Your task to perform on an android device: Open the calendar and show me this week's events Image 0: 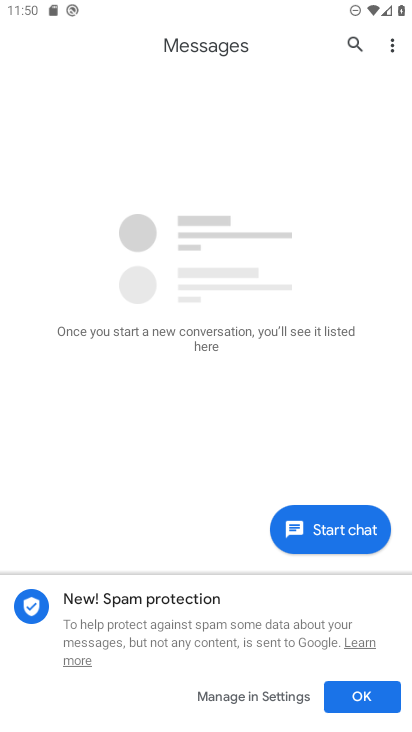
Step 0: press home button
Your task to perform on an android device: Open the calendar and show me this week's events Image 1: 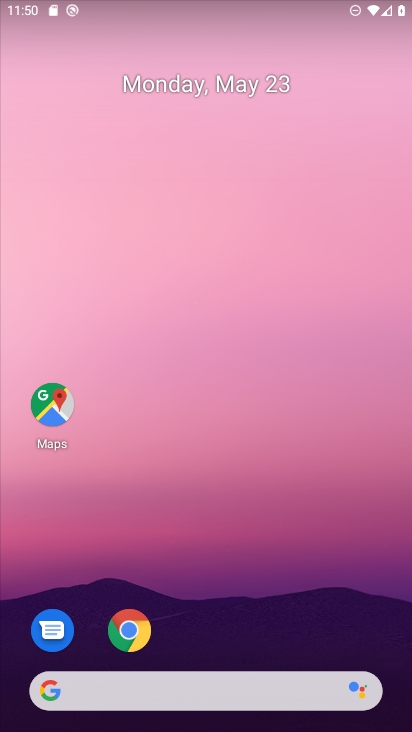
Step 1: drag from (180, 646) to (223, 337)
Your task to perform on an android device: Open the calendar and show me this week's events Image 2: 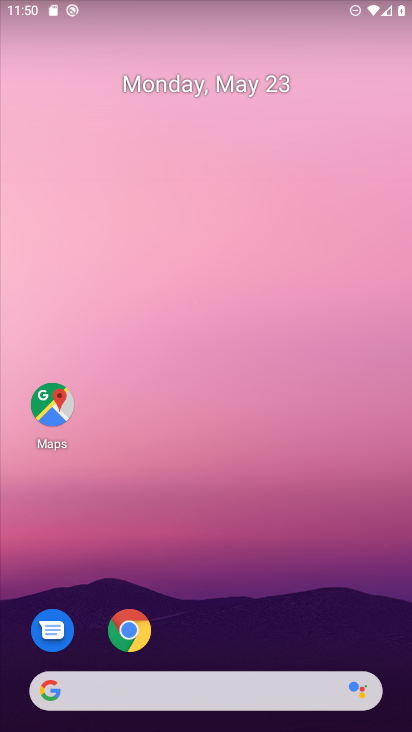
Step 2: drag from (171, 649) to (168, 290)
Your task to perform on an android device: Open the calendar and show me this week's events Image 3: 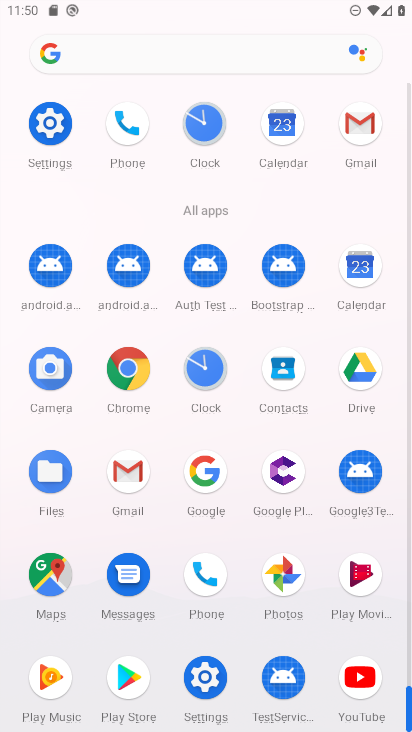
Step 3: click (356, 275)
Your task to perform on an android device: Open the calendar and show me this week's events Image 4: 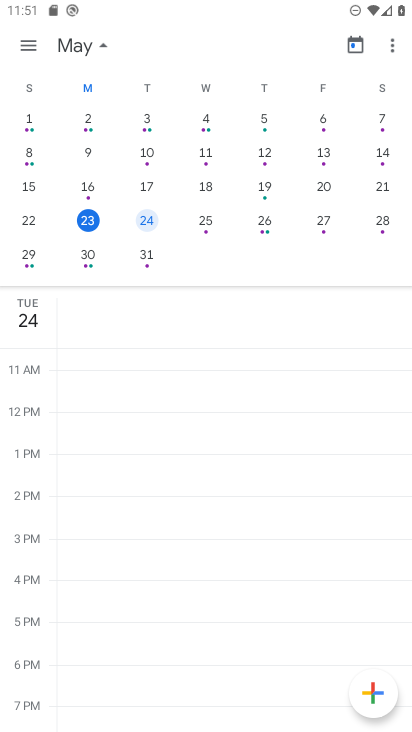
Step 4: click (97, 46)
Your task to perform on an android device: Open the calendar and show me this week's events Image 5: 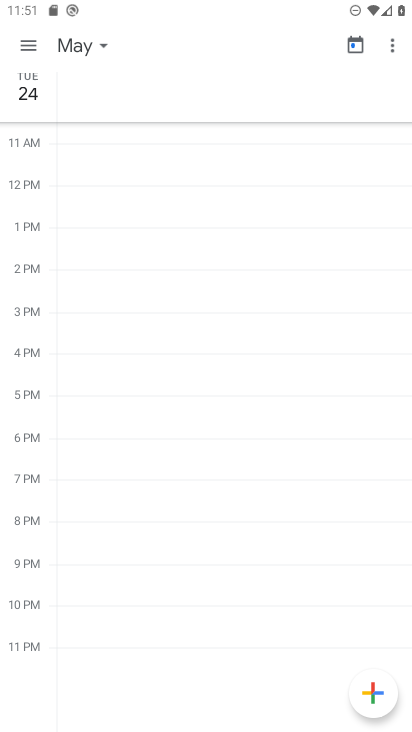
Step 5: click (97, 46)
Your task to perform on an android device: Open the calendar and show me this week's events Image 6: 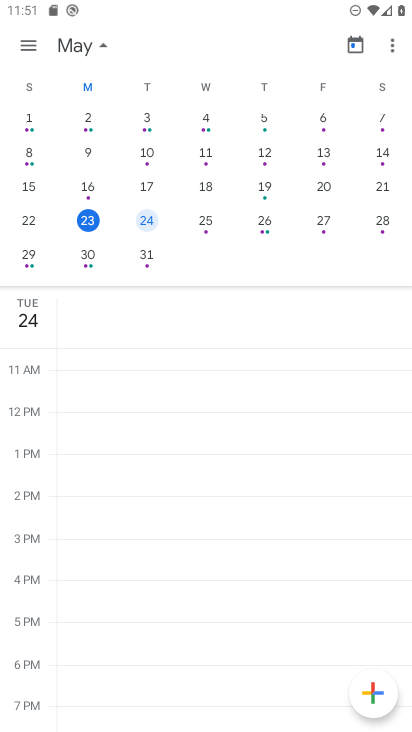
Step 6: click (204, 225)
Your task to perform on an android device: Open the calendar and show me this week's events Image 7: 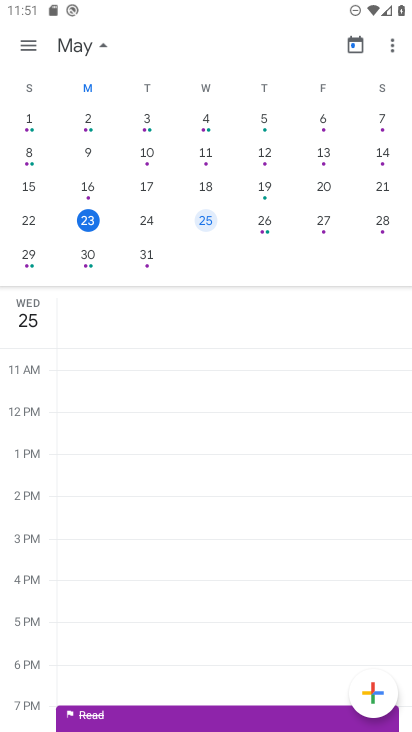
Step 7: click (270, 234)
Your task to perform on an android device: Open the calendar and show me this week's events Image 8: 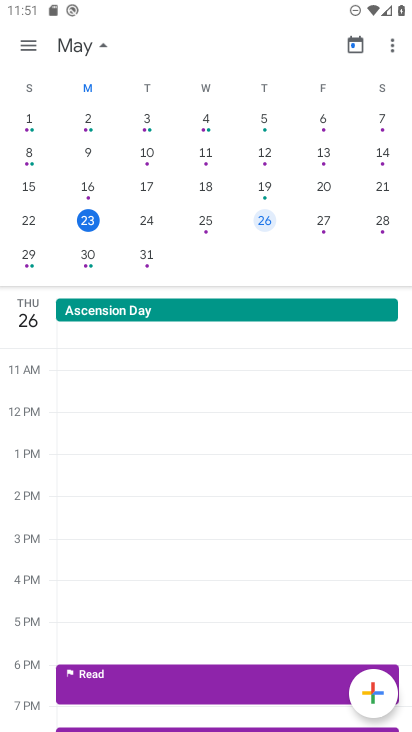
Step 8: click (332, 231)
Your task to perform on an android device: Open the calendar and show me this week's events Image 9: 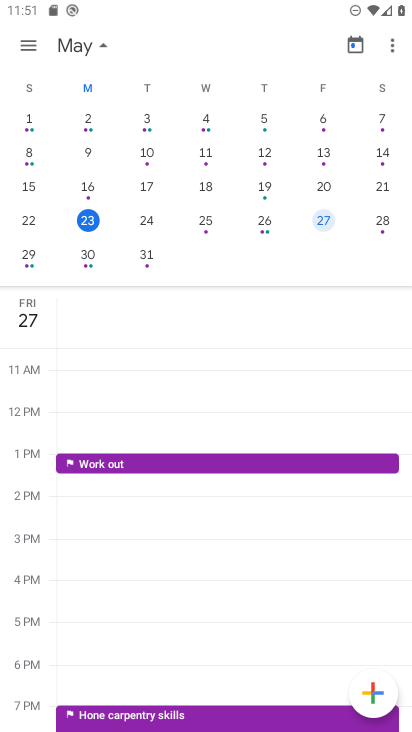
Step 9: click (378, 228)
Your task to perform on an android device: Open the calendar and show me this week's events Image 10: 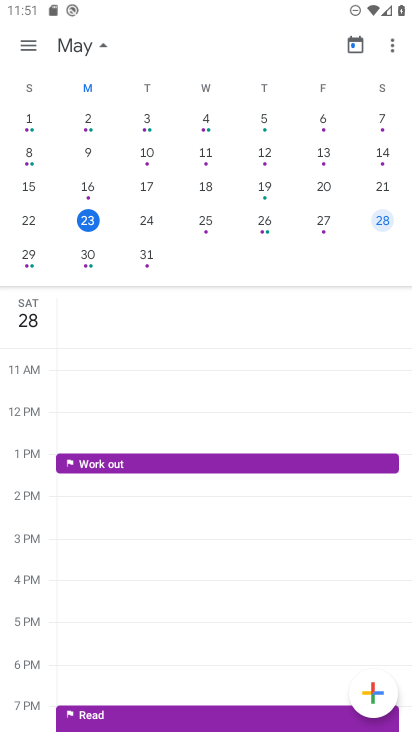
Step 10: click (24, 257)
Your task to perform on an android device: Open the calendar and show me this week's events Image 11: 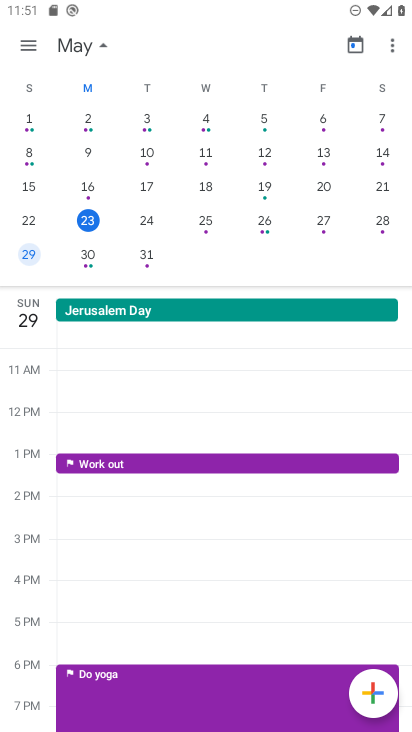
Step 11: task complete